Your task to perform on an android device: turn off wifi Image 0: 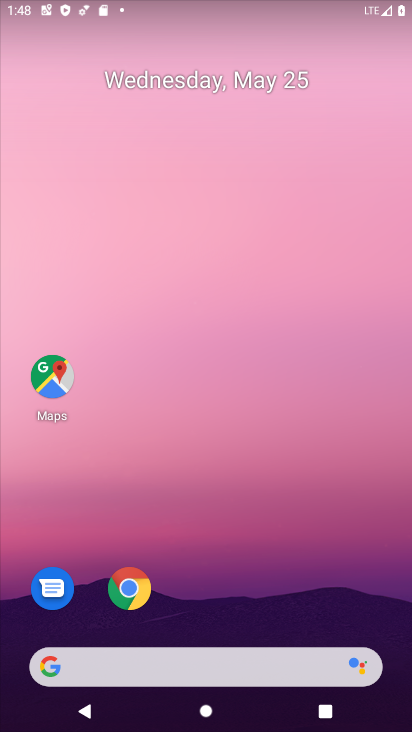
Step 0: drag from (215, 623) to (290, 40)
Your task to perform on an android device: turn off wifi Image 1: 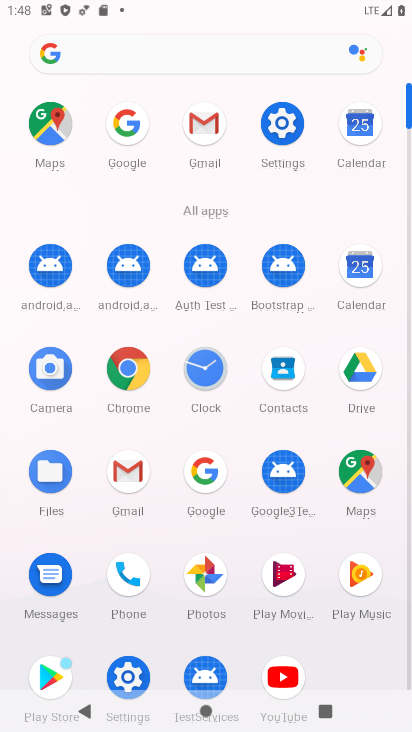
Step 1: click (283, 134)
Your task to perform on an android device: turn off wifi Image 2: 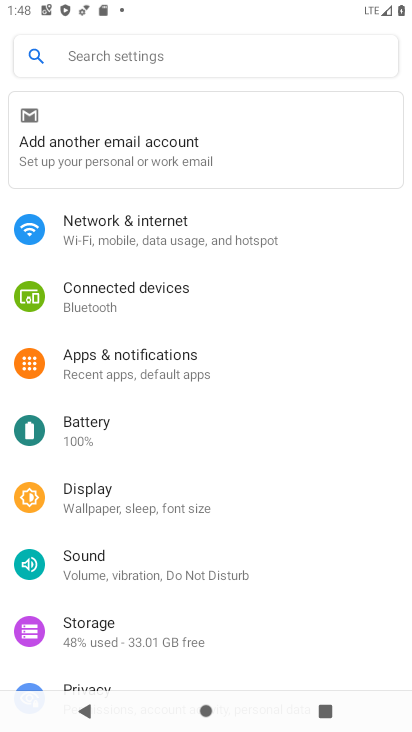
Step 2: click (158, 236)
Your task to perform on an android device: turn off wifi Image 3: 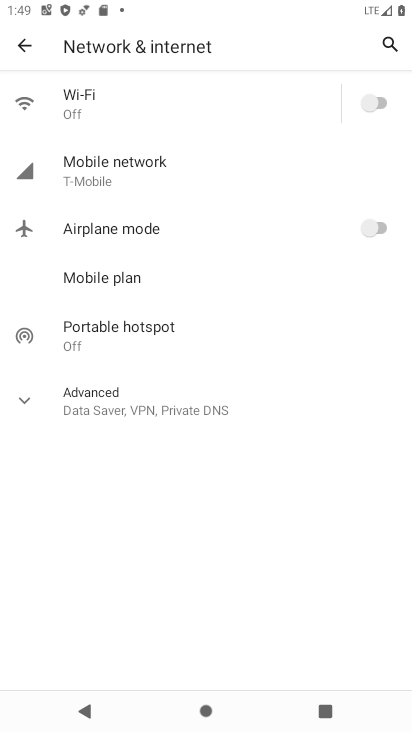
Step 3: task complete